Your task to perform on an android device: Open Youtube and go to the subscriptions tab Image 0: 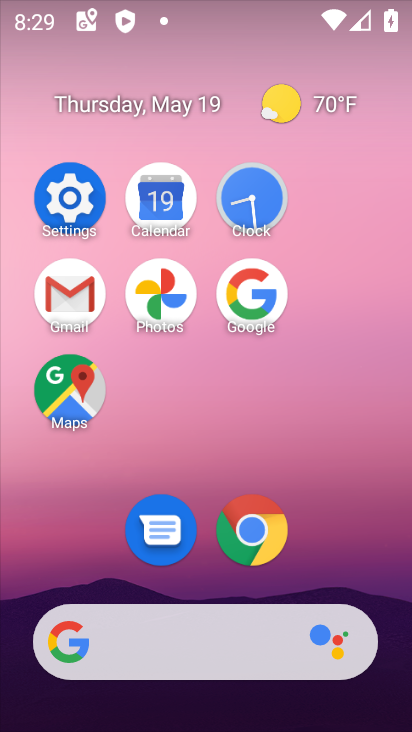
Step 0: drag from (309, 500) to (324, 143)
Your task to perform on an android device: Open Youtube and go to the subscriptions tab Image 1: 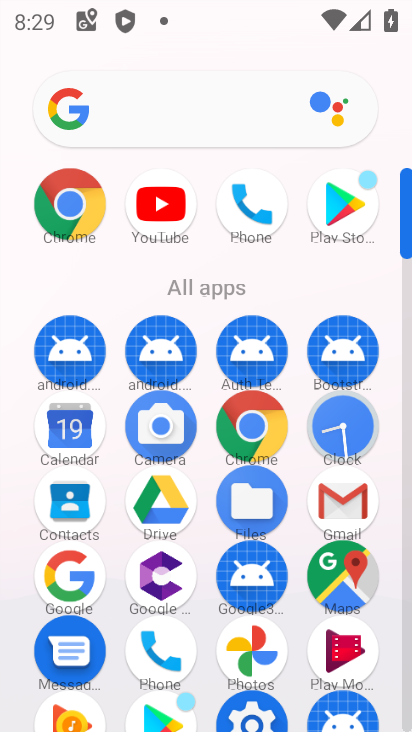
Step 1: drag from (153, 551) to (181, 179)
Your task to perform on an android device: Open Youtube and go to the subscriptions tab Image 2: 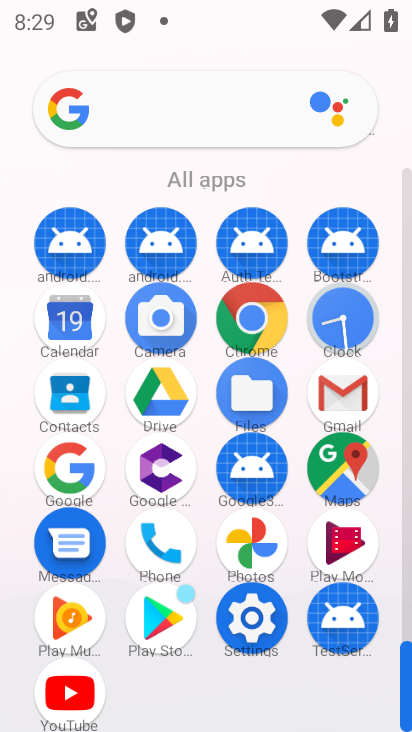
Step 2: click (98, 692)
Your task to perform on an android device: Open Youtube and go to the subscriptions tab Image 3: 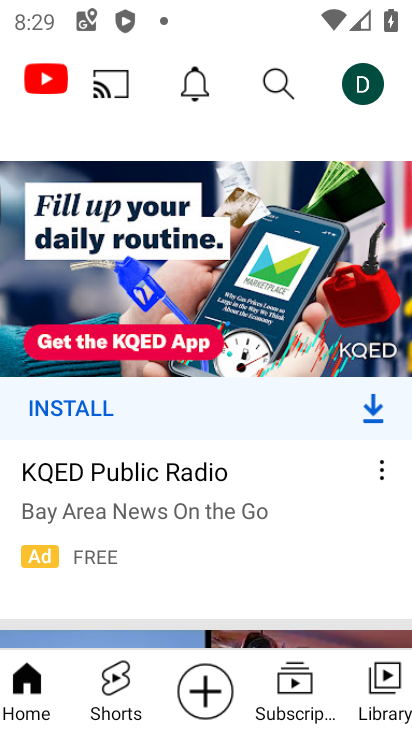
Step 3: click (297, 692)
Your task to perform on an android device: Open Youtube and go to the subscriptions tab Image 4: 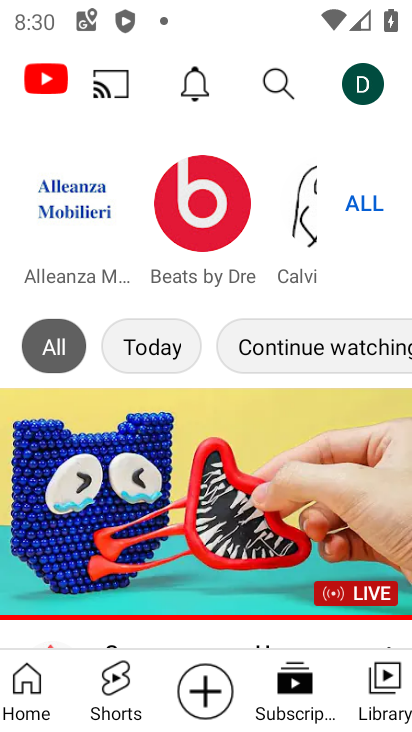
Step 4: task complete